Your task to perform on an android device: Search for pizza restaurants on Maps Image 0: 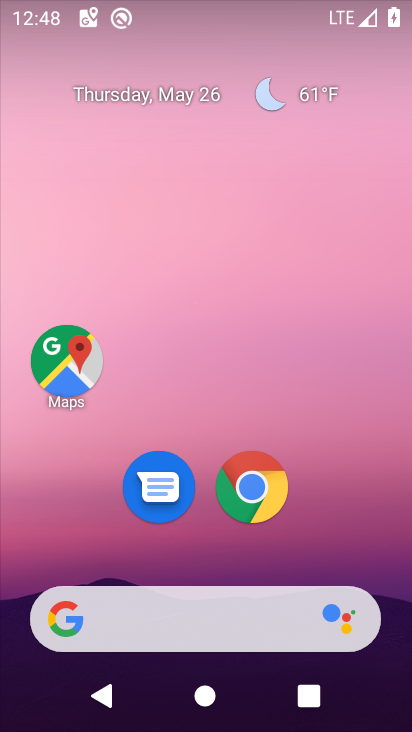
Step 0: drag from (265, 708) to (203, 100)
Your task to perform on an android device: Search for pizza restaurants on Maps Image 1: 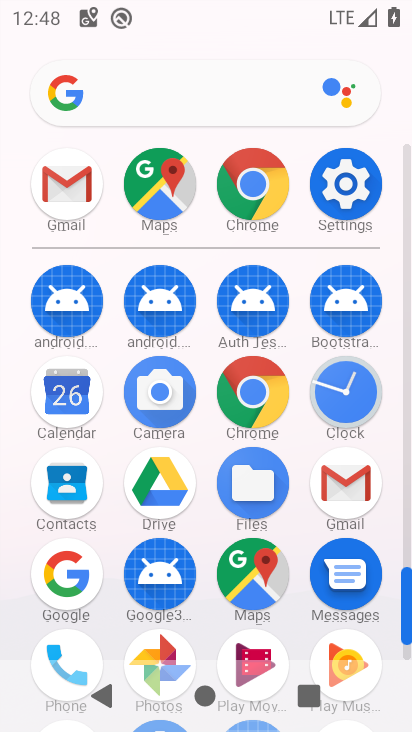
Step 1: click (246, 568)
Your task to perform on an android device: Search for pizza restaurants on Maps Image 2: 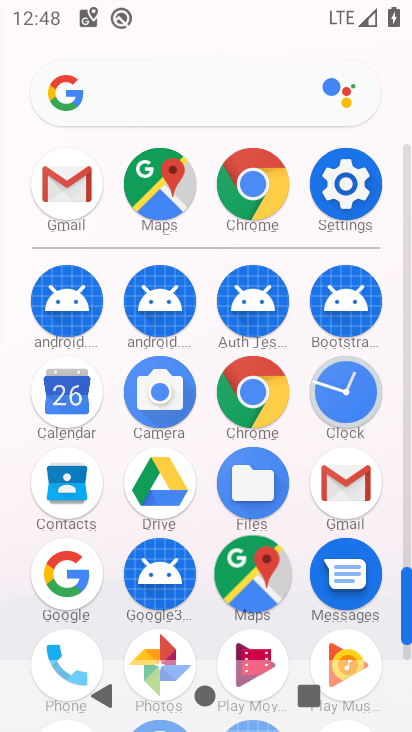
Step 2: click (246, 568)
Your task to perform on an android device: Search for pizza restaurants on Maps Image 3: 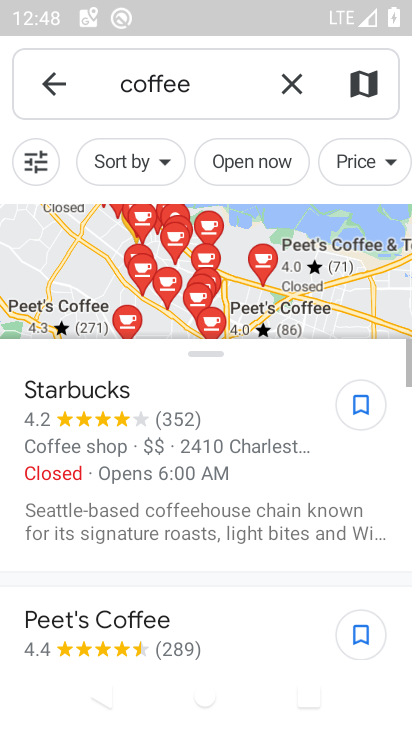
Step 3: click (286, 79)
Your task to perform on an android device: Search for pizza restaurants on Maps Image 4: 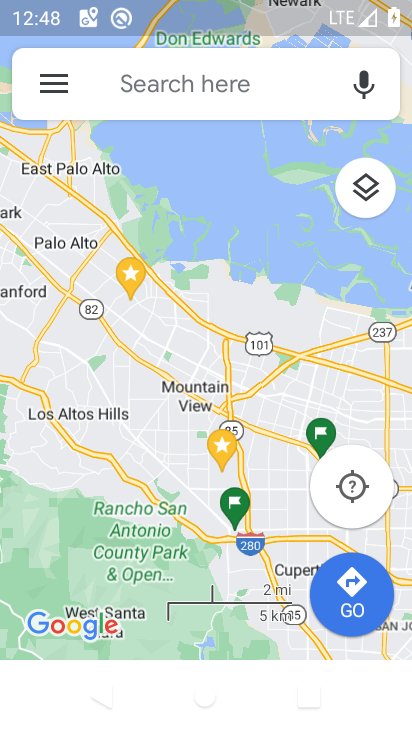
Step 4: click (120, 76)
Your task to perform on an android device: Search for pizza restaurants on Maps Image 5: 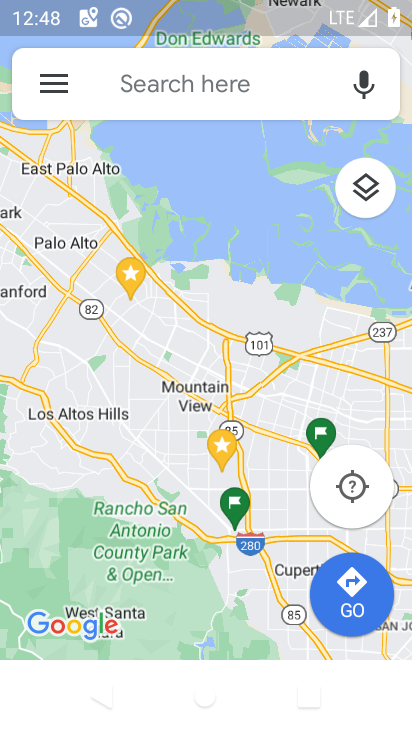
Step 5: click (129, 76)
Your task to perform on an android device: Search for pizza restaurants on Maps Image 6: 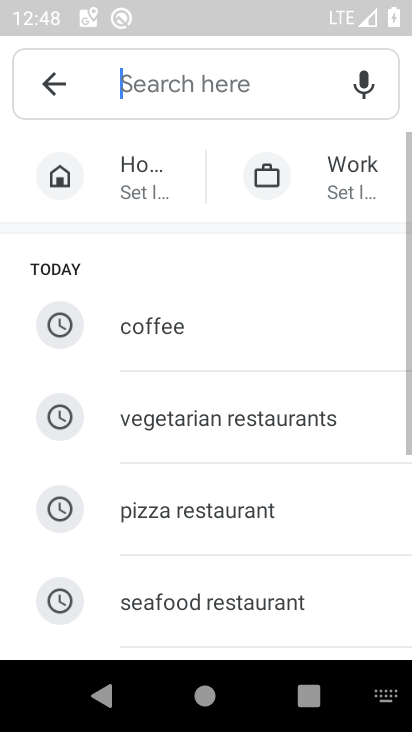
Step 6: click (24, 300)
Your task to perform on an android device: Search for pizza restaurants on Maps Image 7: 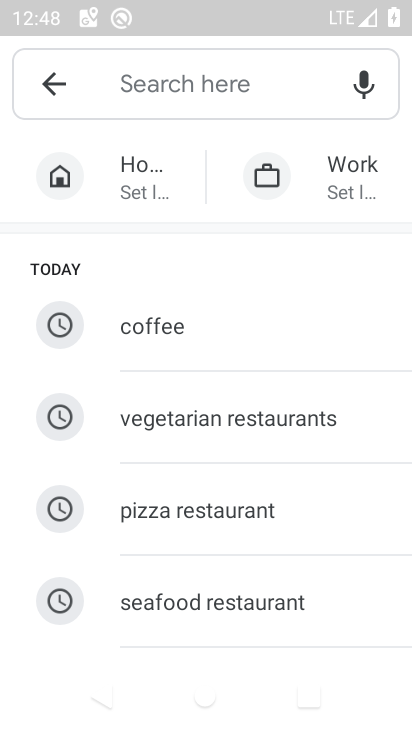
Step 7: click (193, 521)
Your task to perform on an android device: Search for pizza restaurants on Maps Image 8: 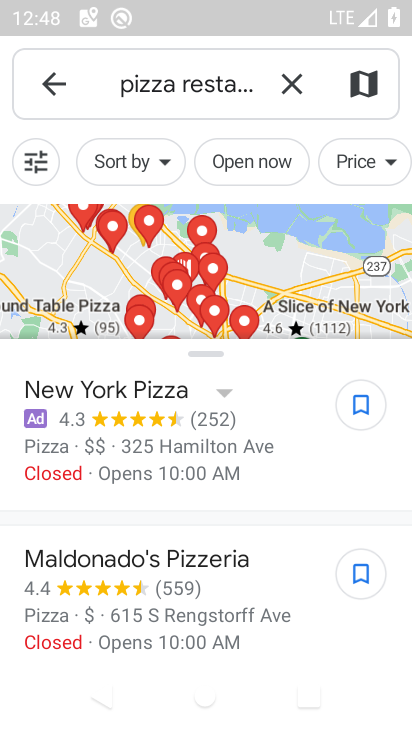
Step 8: task complete